Your task to perform on an android device: Check the weather Image 0: 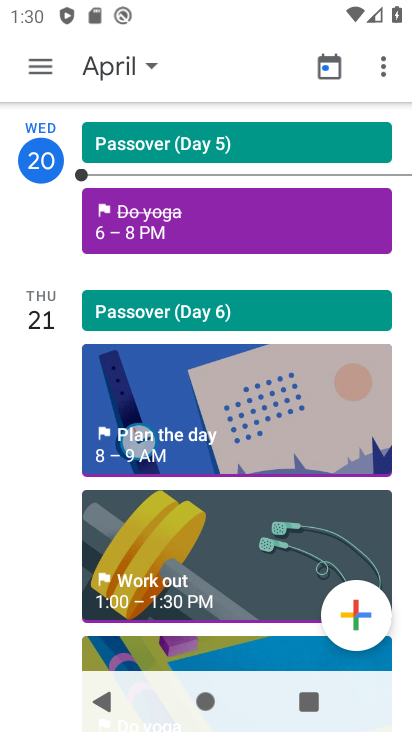
Step 0: press home button
Your task to perform on an android device: Check the weather Image 1: 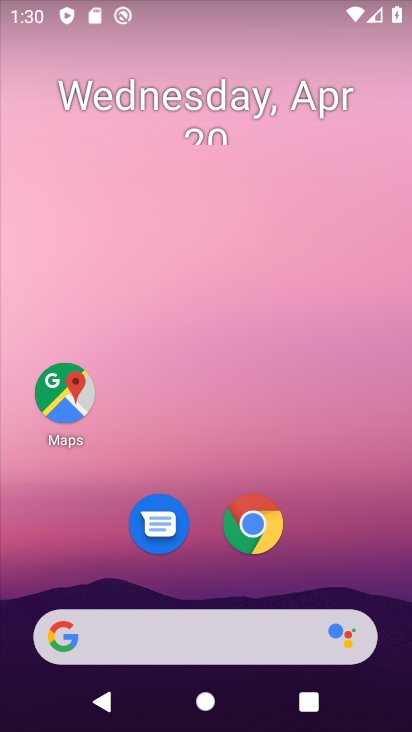
Step 1: click (69, 633)
Your task to perform on an android device: Check the weather Image 2: 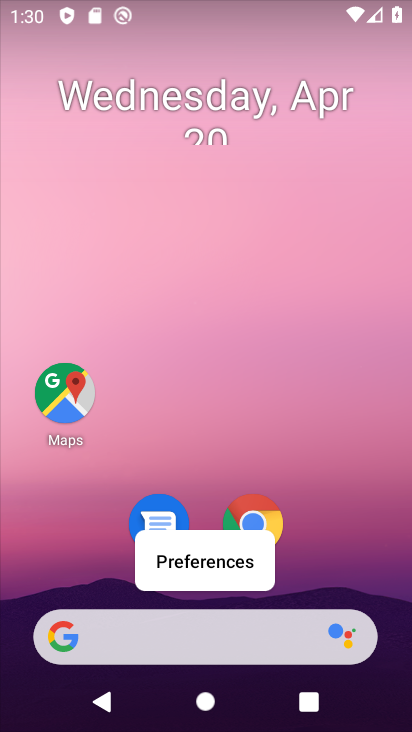
Step 2: click (74, 634)
Your task to perform on an android device: Check the weather Image 3: 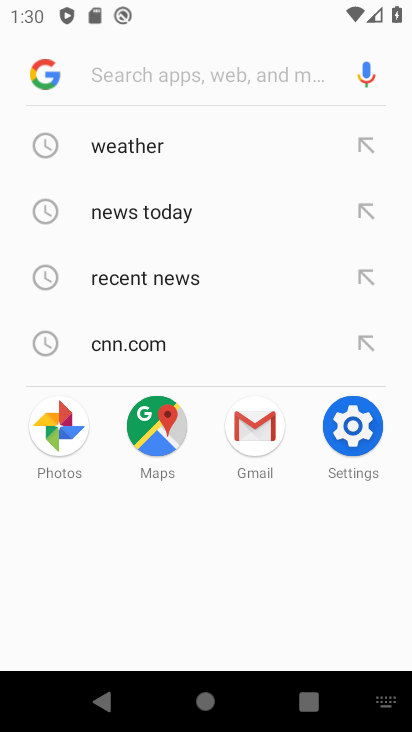
Step 3: click (138, 144)
Your task to perform on an android device: Check the weather Image 4: 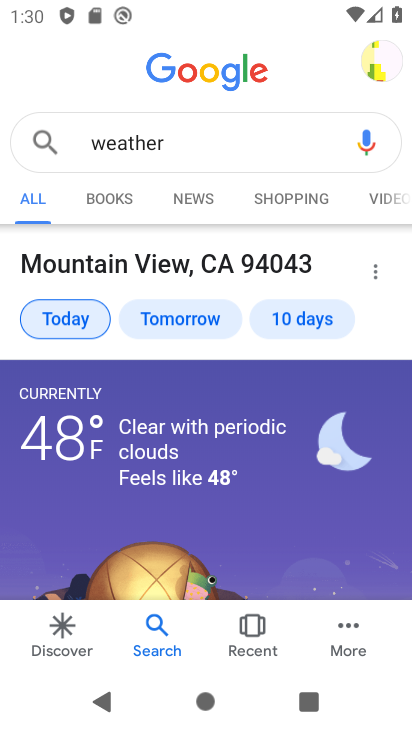
Step 4: task complete